Your task to perform on an android device: find which apps use the phone's location Image 0: 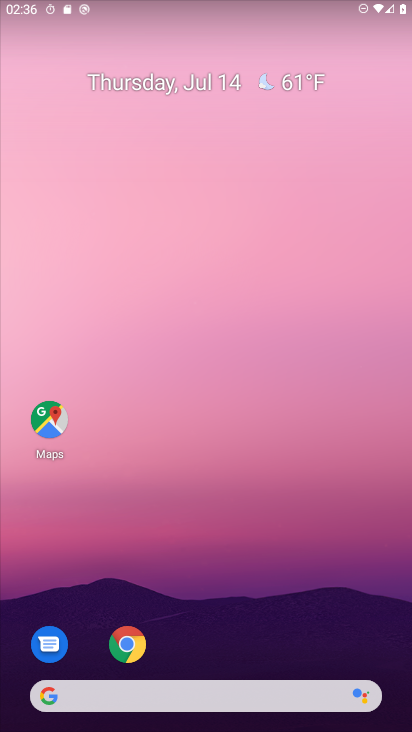
Step 0: drag from (302, 548) to (234, 101)
Your task to perform on an android device: find which apps use the phone's location Image 1: 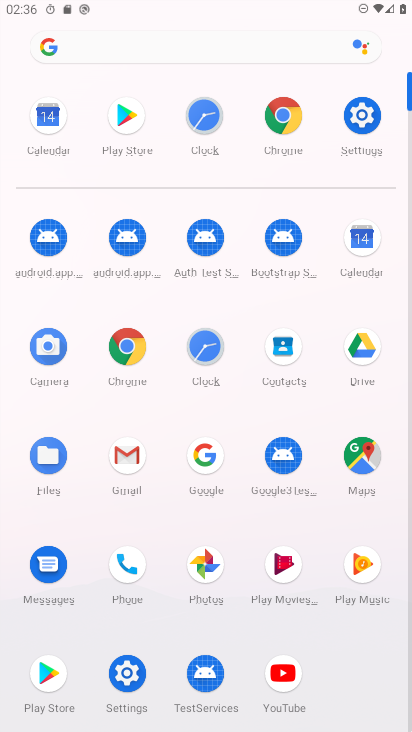
Step 1: click (366, 104)
Your task to perform on an android device: find which apps use the phone's location Image 2: 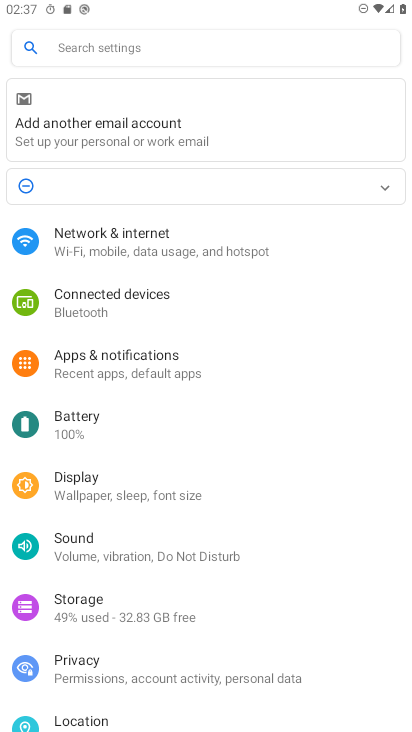
Step 2: click (84, 727)
Your task to perform on an android device: find which apps use the phone's location Image 3: 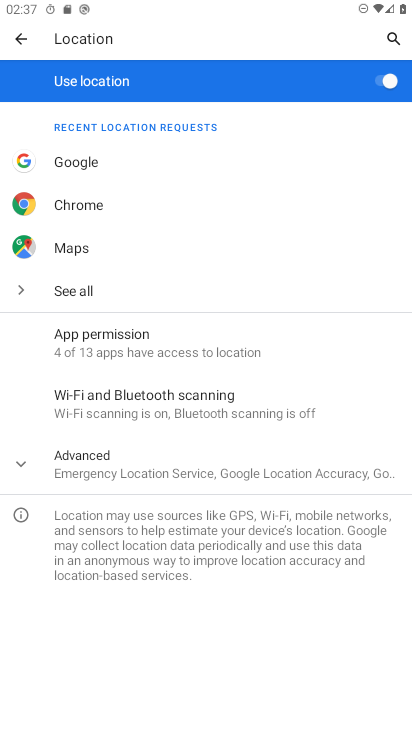
Step 3: click (106, 348)
Your task to perform on an android device: find which apps use the phone's location Image 4: 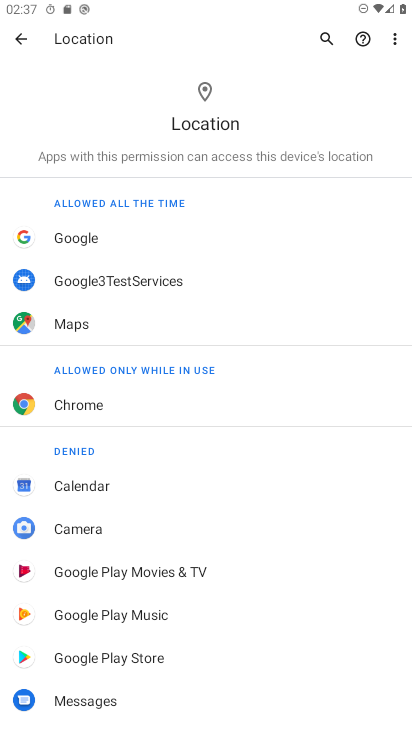
Step 4: task complete